Your task to perform on an android device: see sites visited before in the chrome app Image 0: 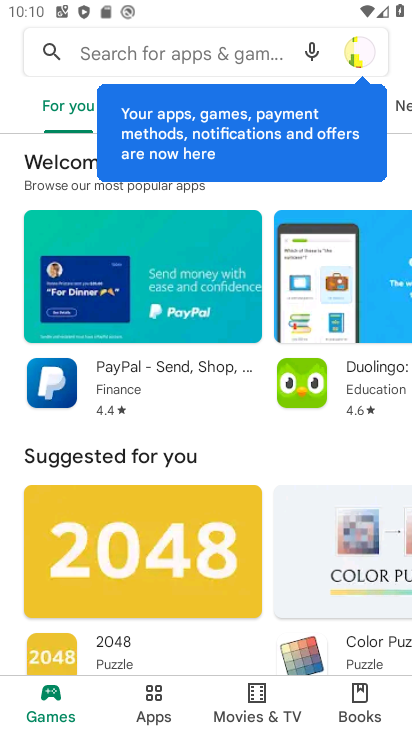
Step 0: press home button
Your task to perform on an android device: see sites visited before in the chrome app Image 1: 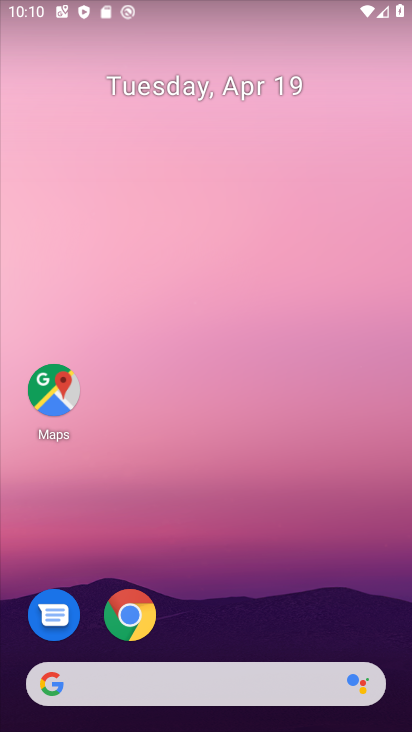
Step 1: drag from (214, 642) to (214, 280)
Your task to perform on an android device: see sites visited before in the chrome app Image 2: 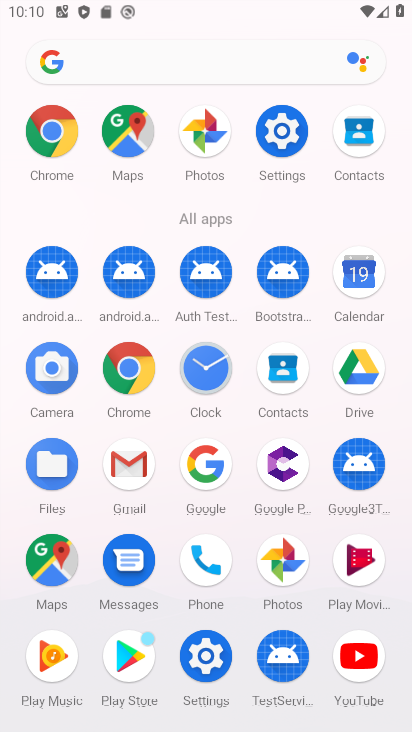
Step 2: click (123, 369)
Your task to perform on an android device: see sites visited before in the chrome app Image 3: 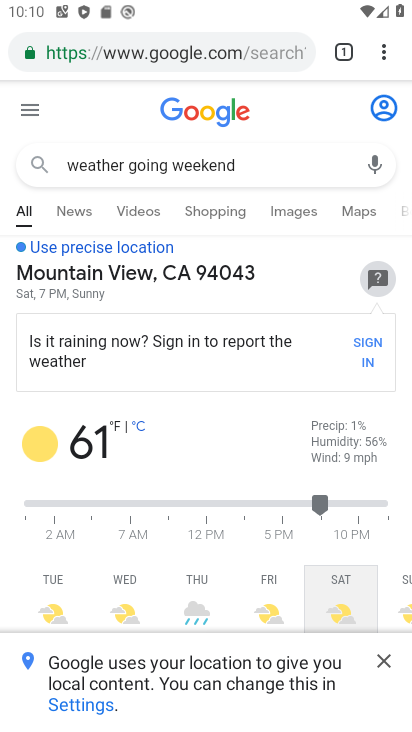
Step 3: drag from (213, 569) to (207, 250)
Your task to perform on an android device: see sites visited before in the chrome app Image 4: 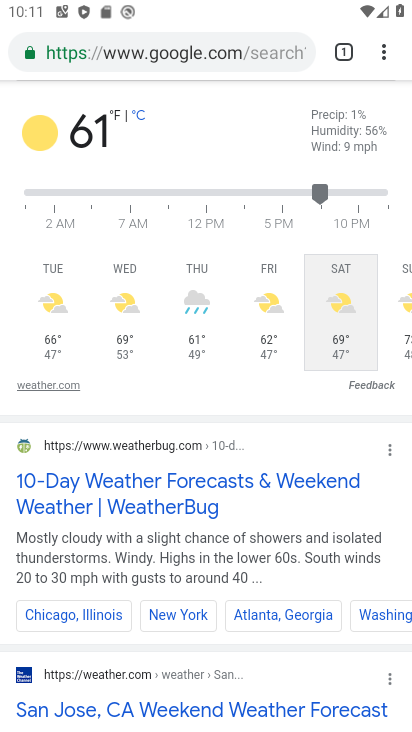
Step 4: drag from (261, 160) to (297, 651)
Your task to perform on an android device: see sites visited before in the chrome app Image 5: 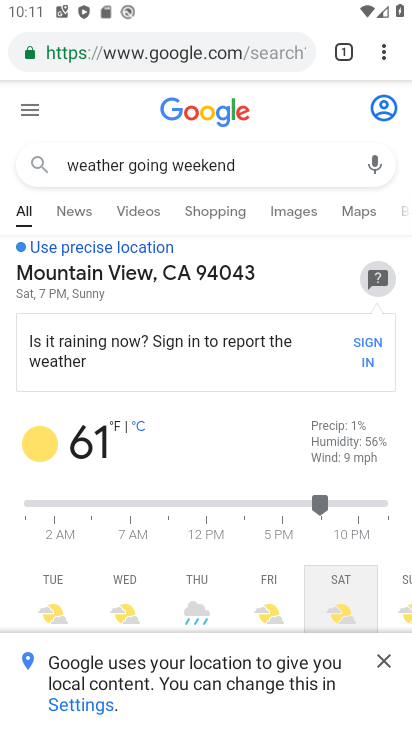
Step 5: drag from (208, 592) to (235, 160)
Your task to perform on an android device: see sites visited before in the chrome app Image 6: 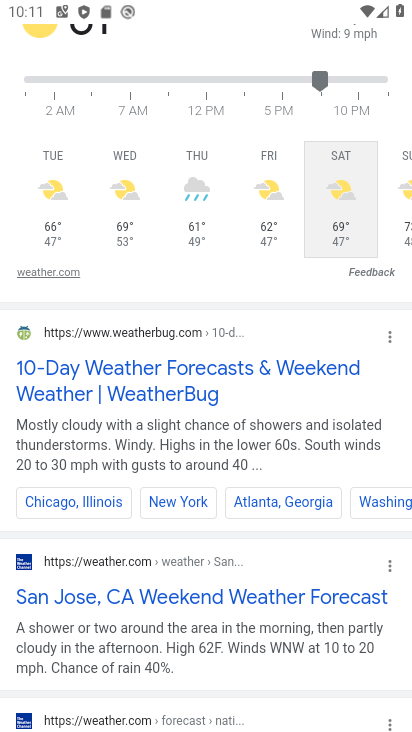
Step 6: drag from (239, 433) to (138, 39)
Your task to perform on an android device: see sites visited before in the chrome app Image 7: 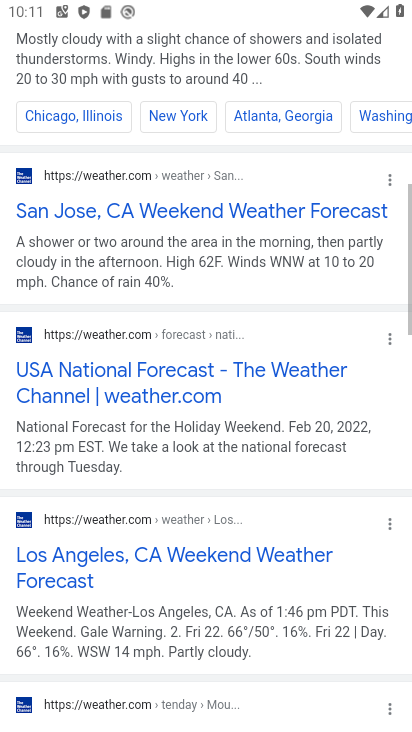
Step 7: drag from (236, 607) to (256, 249)
Your task to perform on an android device: see sites visited before in the chrome app Image 8: 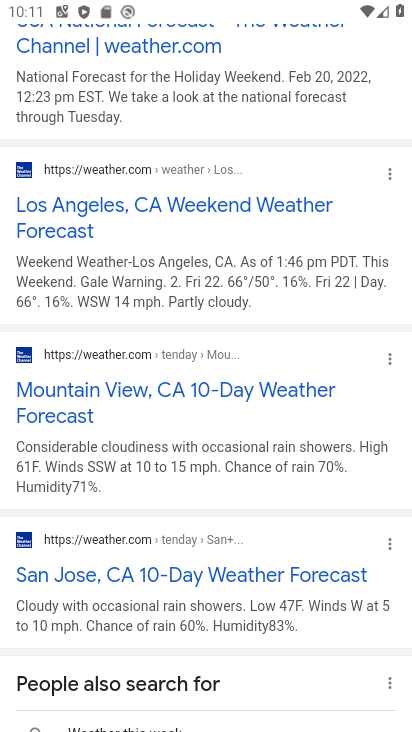
Step 8: drag from (256, 507) to (357, 172)
Your task to perform on an android device: see sites visited before in the chrome app Image 9: 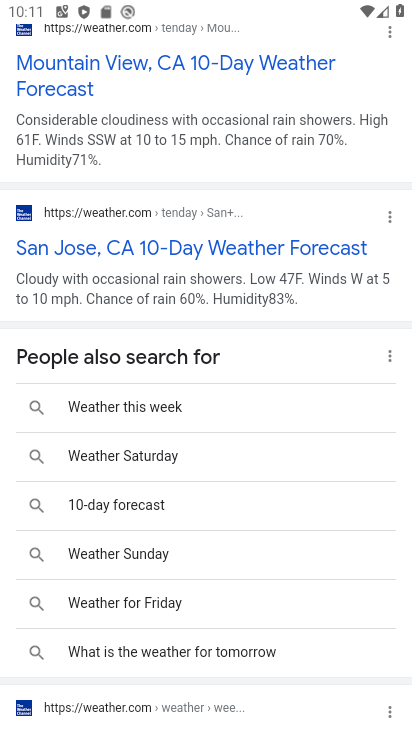
Step 9: drag from (180, 233) to (266, 553)
Your task to perform on an android device: see sites visited before in the chrome app Image 10: 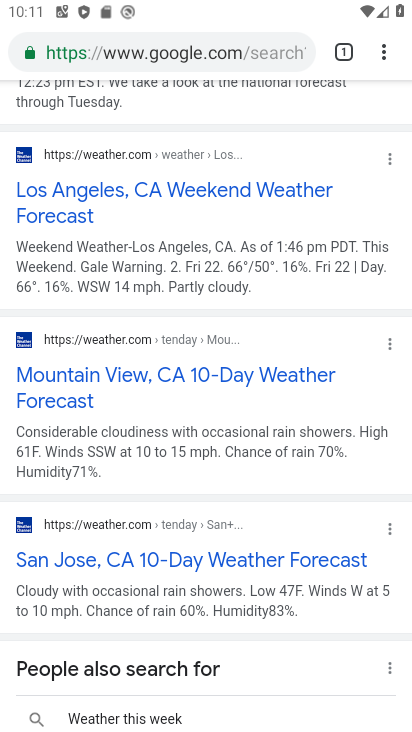
Step 10: drag from (227, 336) to (237, 154)
Your task to perform on an android device: see sites visited before in the chrome app Image 11: 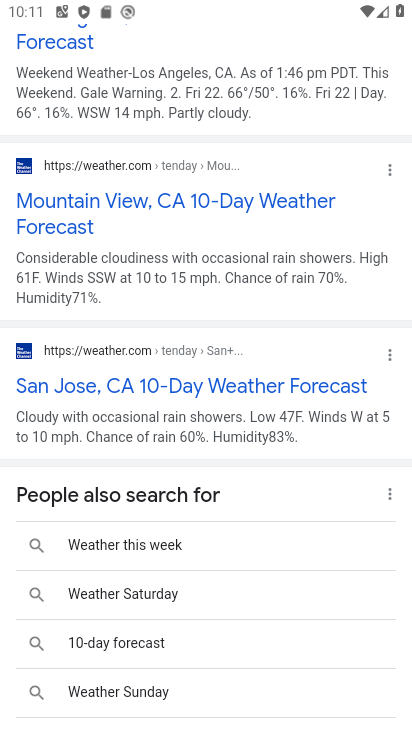
Step 11: drag from (183, 182) to (209, 422)
Your task to perform on an android device: see sites visited before in the chrome app Image 12: 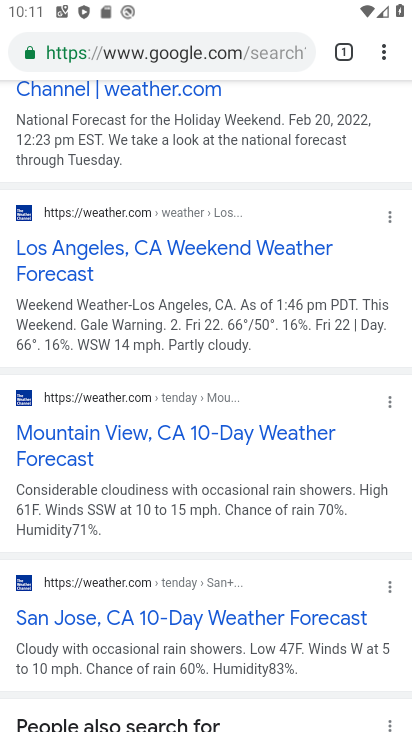
Step 12: drag from (203, 219) to (307, 529)
Your task to perform on an android device: see sites visited before in the chrome app Image 13: 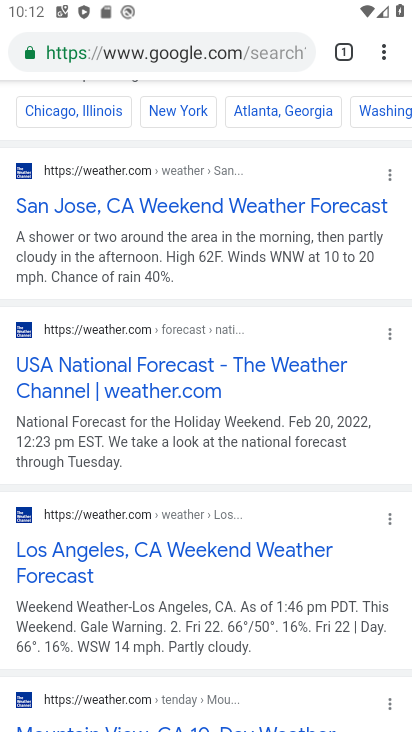
Step 13: drag from (255, 266) to (316, 721)
Your task to perform on an android device: see sites visited before in the chrome app Image 14: 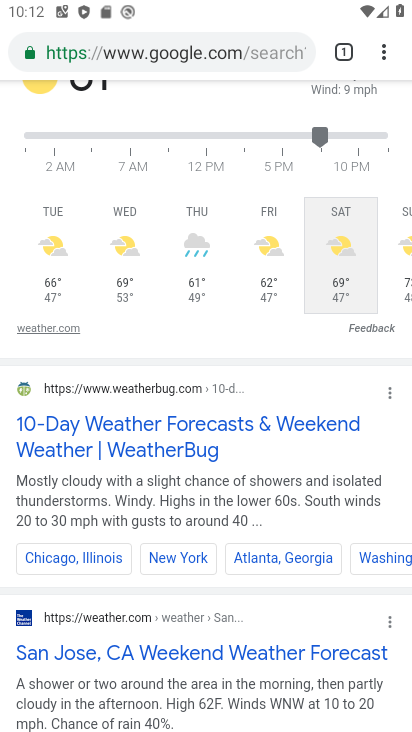
Step 14: drag from (385, 44) to (235, 285)
Your task to perform on an android device: see sites visited before in the chrome app Image 15: 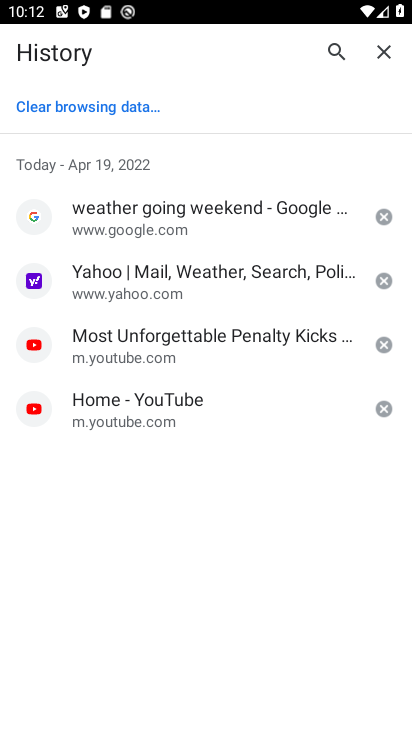
Step 15: click (75, 107)
Your task to perform on an android device: see sites visited before in the chrome app Image 16: 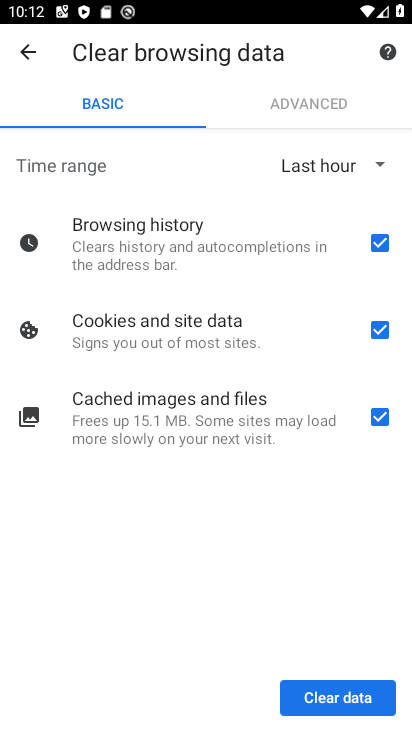
Step 16: drag from (185, 515) to (220, 202)
Your task to perform on an android device: see sites visited before in the chrome app Image 17: 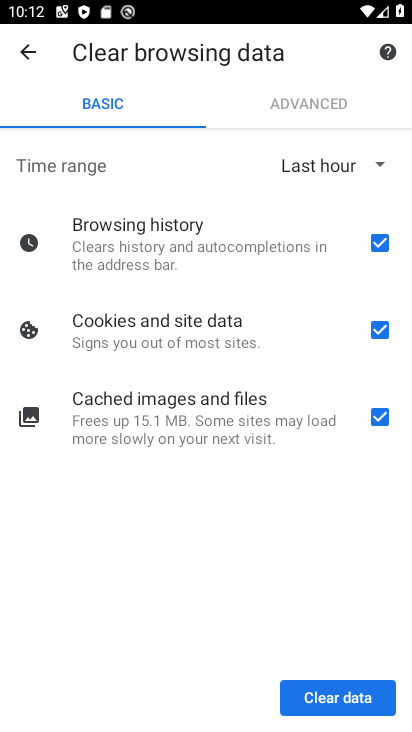
Step 17: click (352, 707)
Your task to perform on an android device: see sites visited before in the chrome app Image 18: 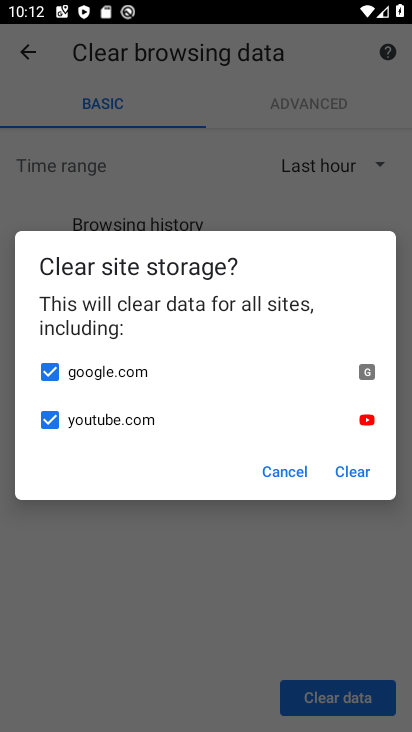
Step 18: click (356, 467)
Your task to perform on an android device: see sites visited before in the chrome app Image 19: 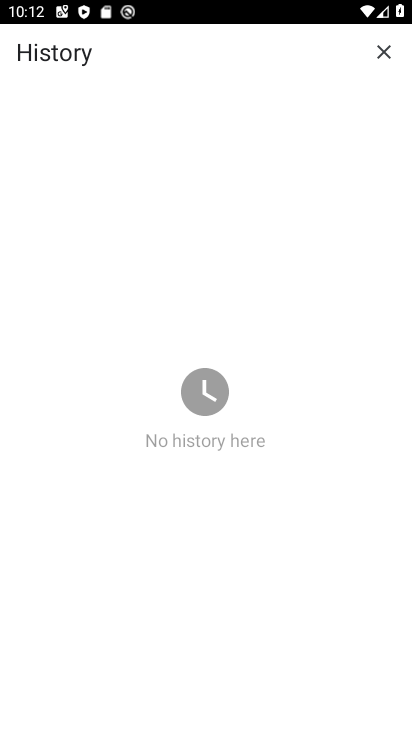
Step 19: task complete